Your task to perform on an android device: Go to location settings Image 0: 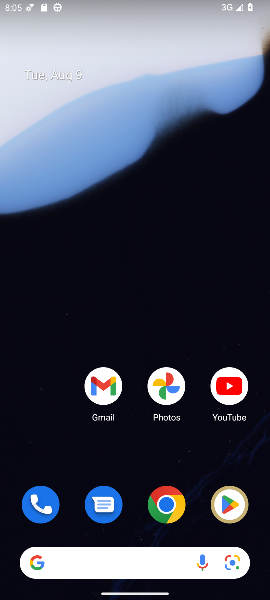
Step 0: drag from (65, 398) to (118, 84)
Your task to perform on an android device: Go to location settings Image 1: 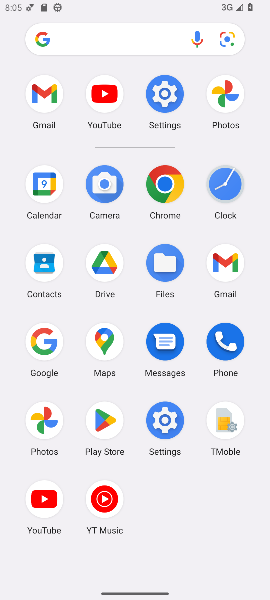
Step 1: click (170, 422)
Your task to perform on an android device: Go to location settings Image 2: 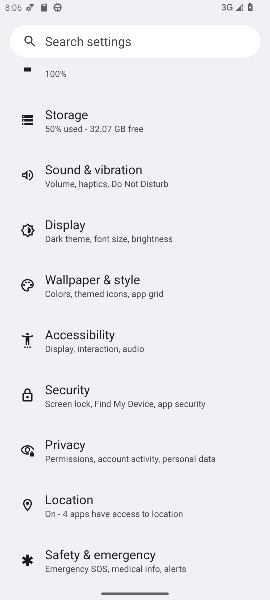
Step 2: drag from (170, 422) to (182, 273)
Your task to perform on an android device: Go to location settings Image 3: 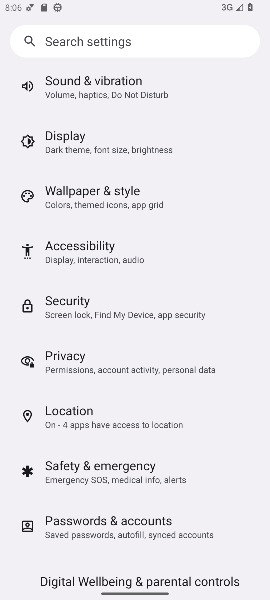
Step 3: click (130, 415)
Your task to perform on an android device: Go to location settings Image 4: 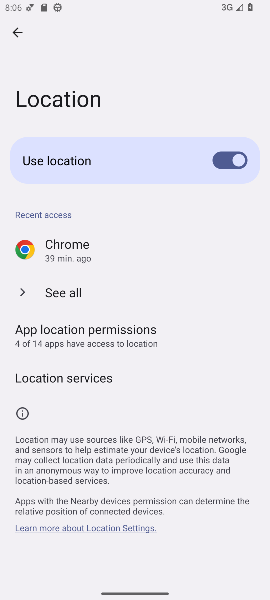
Step 4: task complete